Your task to perform on an android device: Open network settings Image 0: 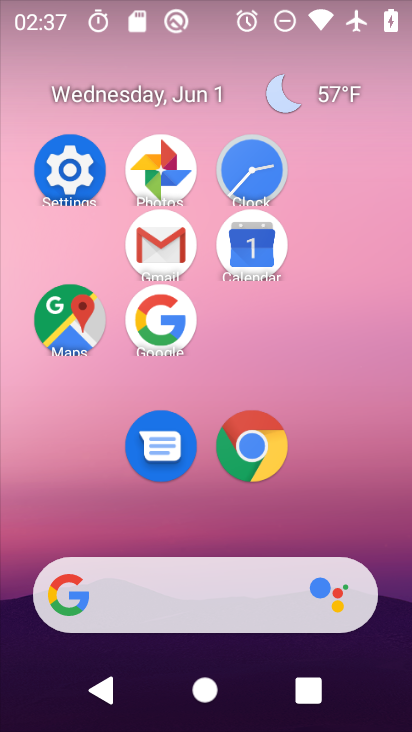
Step 0: click (76, 159)
Your task to perform on an android device: Open network settings Image 1: 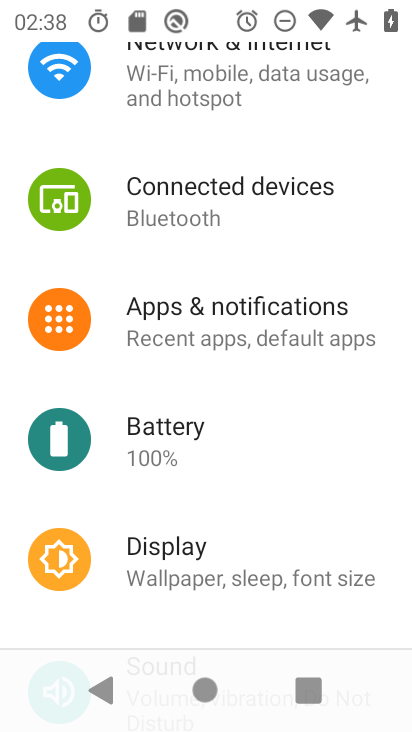
Step 1: click (252, 76)
Your task to perform on an android device: Open network settings Image 2: 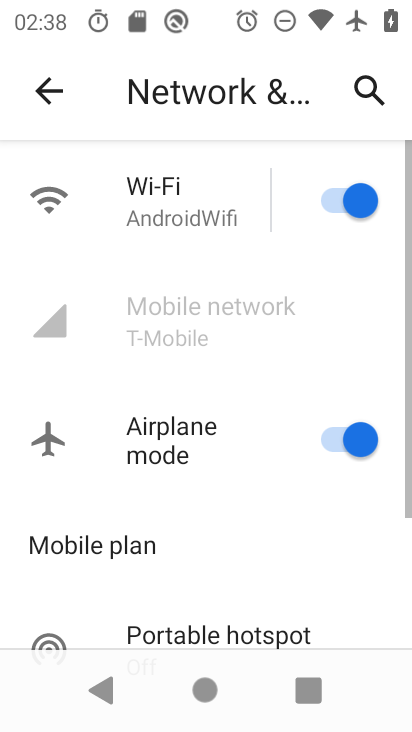
Step 2: task complete